Your task to perform on an android device: open app "Lyft - Rideshare, Bikes, Scooters & Transit" (install if not already installed) Image 0: 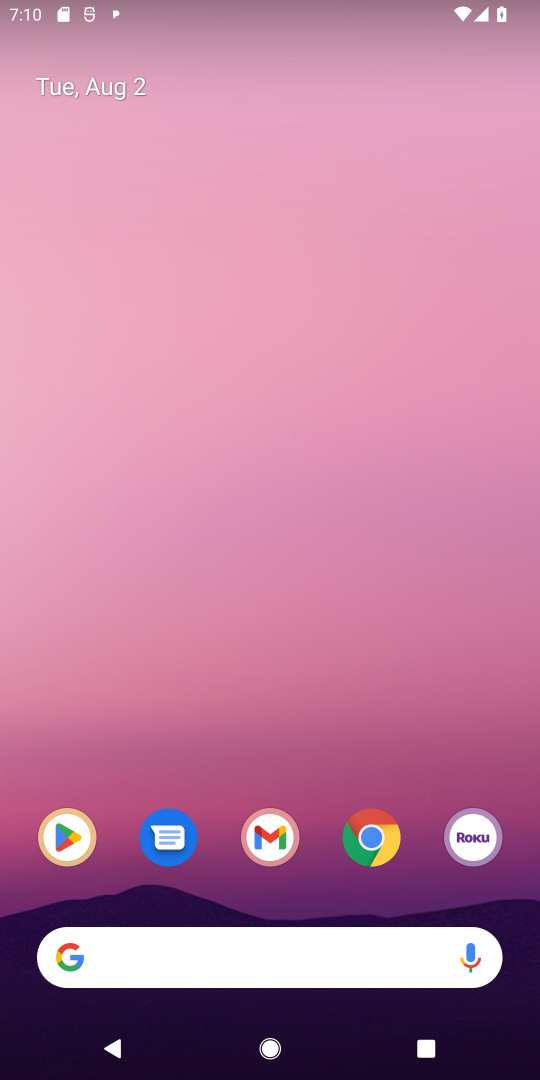
Step 0: click (63, 839)
Your task to perform on an android device: open app "Lyft - Rideshare, Bikes, Scooters & Transit" (install if not already installed) Image 1: 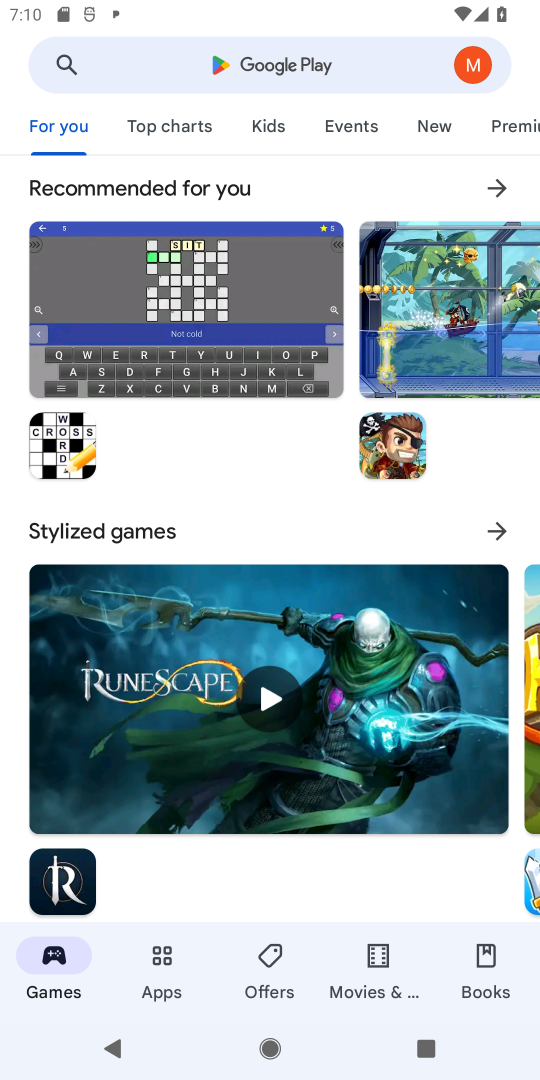
Step 1: click (163, 67)
Your task to perform on an android device: open app "Lyft - Rideshare, Bikes, Scooters & Transit" (install if not already installed) Image 2: 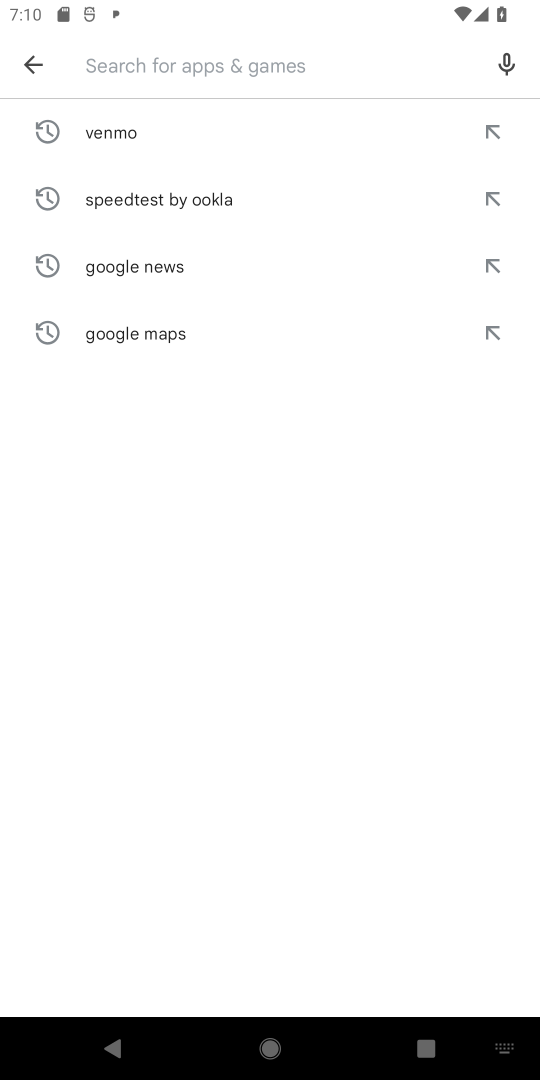
Step 2: type "Lyft - Rideshare, Bikes, Scooters & Transit"
Your task to perform on an android device: open app "Lyft - Rideshare, Bikes, Scooters & Transit" (install if not already installed) Image 3: 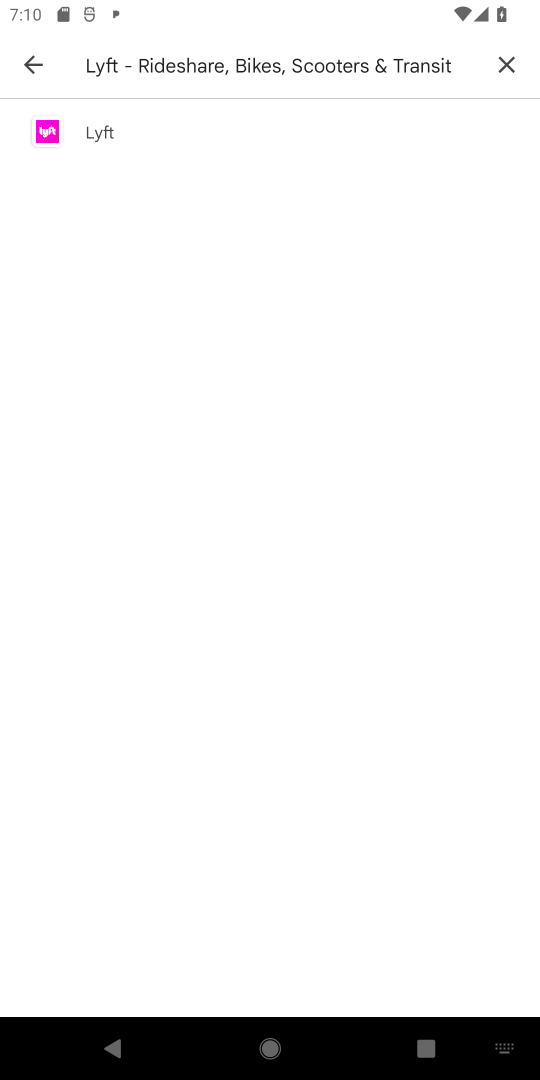
Step 3: click (100, 137)
Your task to perform on an android device: open app "Lyft - Rideshare, Bikes, Scooters & Transit" (install if not already installed) Image 4: 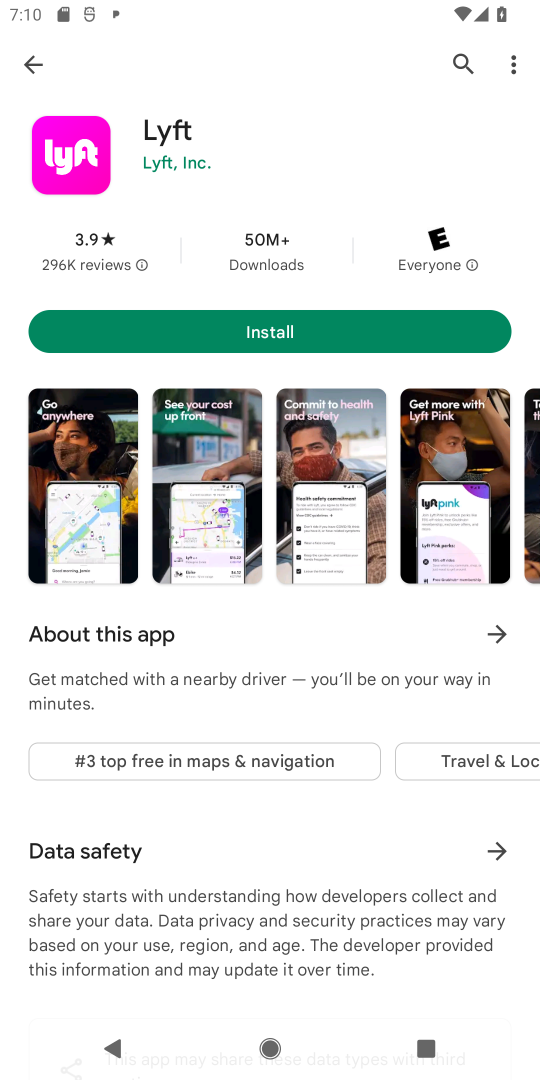
Step 4: click (301, 332)
Your task to perform on an android device: open app "Lyft - Rideshare, Bikes, Scooters & Transit" (install if not already installed) Image 5: 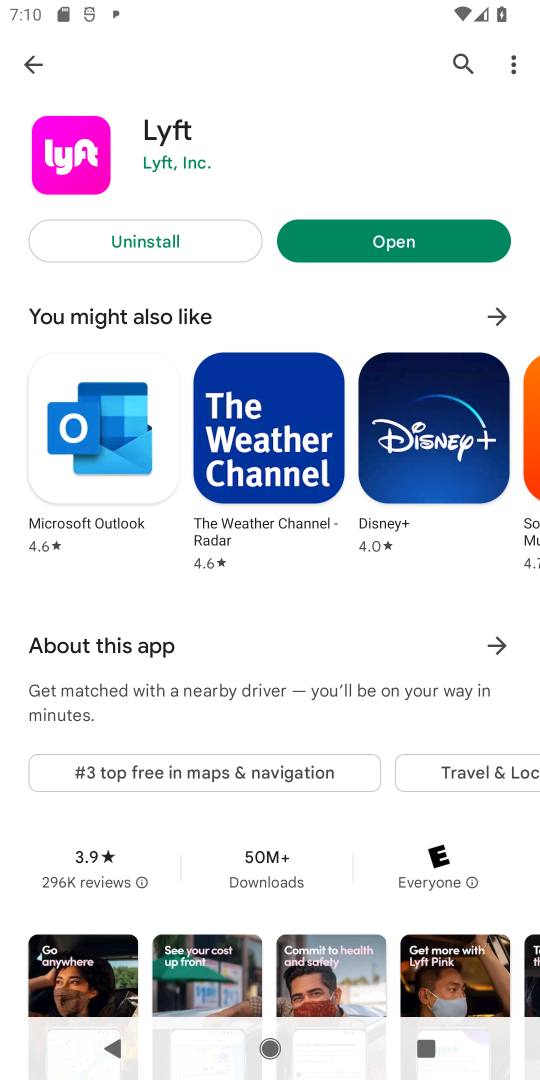
Step 5: click (402, 248)
Your task to perform on an android device: open app "Lyft - Rideshare, Bikes, Scooters & Transit" (install if not already installed) Image 6: 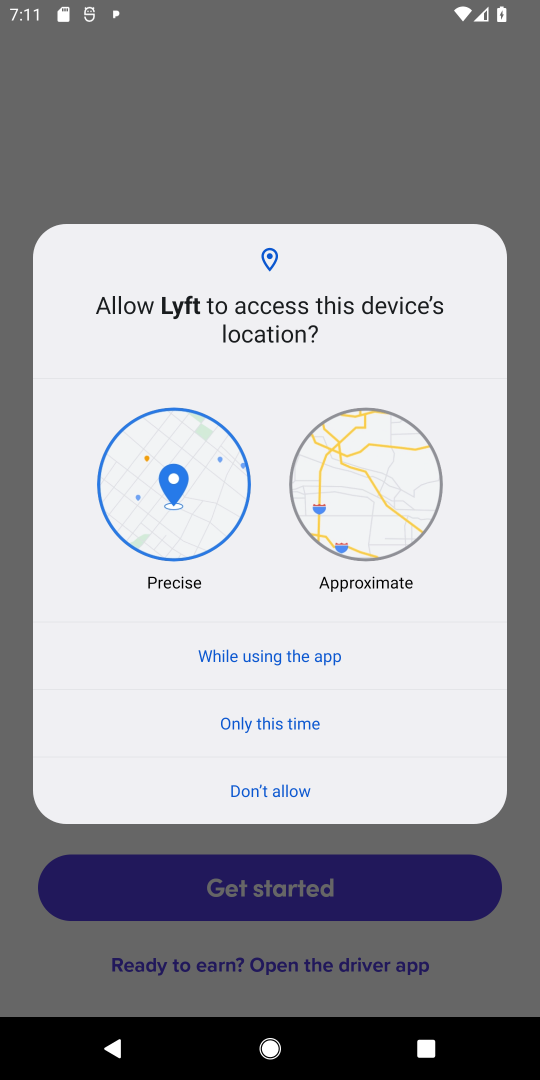
Step 6: task complete